Your task to perform on an android device: toggle sleep mode Image 0: 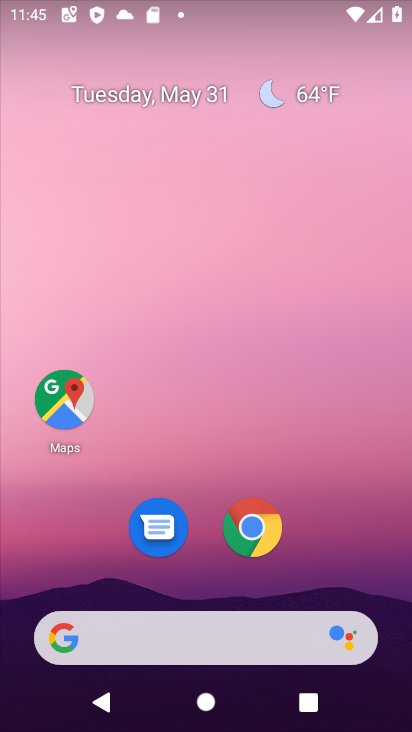
Step 0: drag from (256, 646) to (283, 19)
Your task to perform on an android device: toggle sleep mode Image 1: 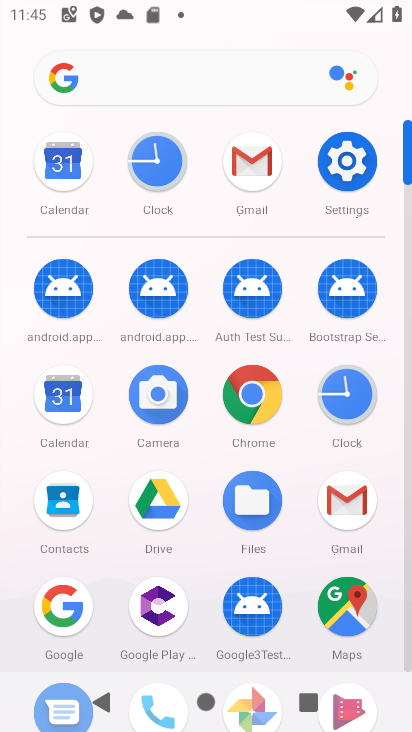
Step 1: click (338, 154)
Your task to perform on an android device: toggle sleep mode Image 2: 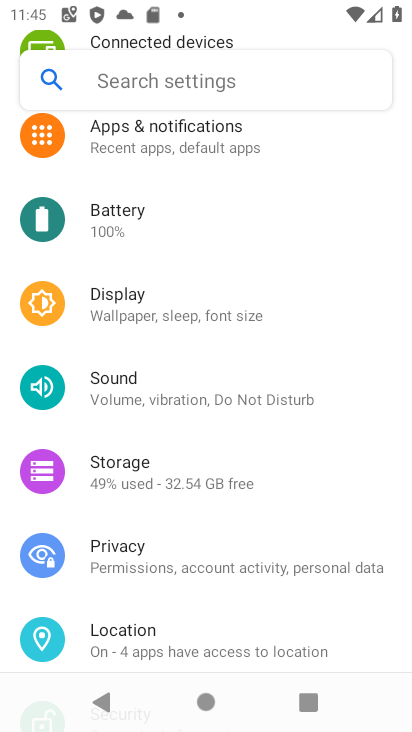
Step 2: click (234, 319)
Your task to perform on an android device: toggle sleep mode Image 3: 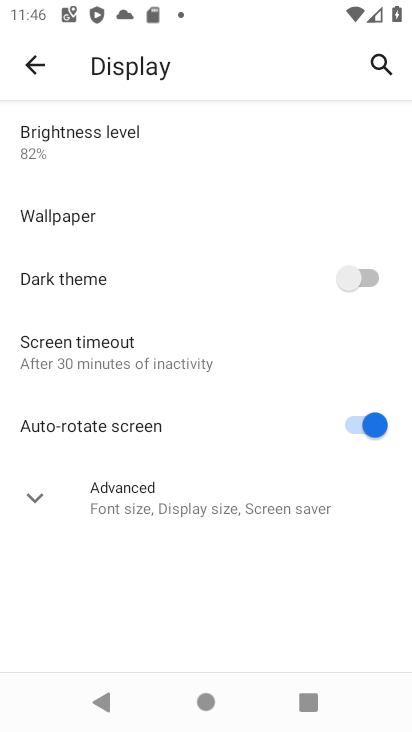
Step 3: task complete